Your task to perform on an android device: Add "usb-c to usb-a" to the cart on amazon Image 0: 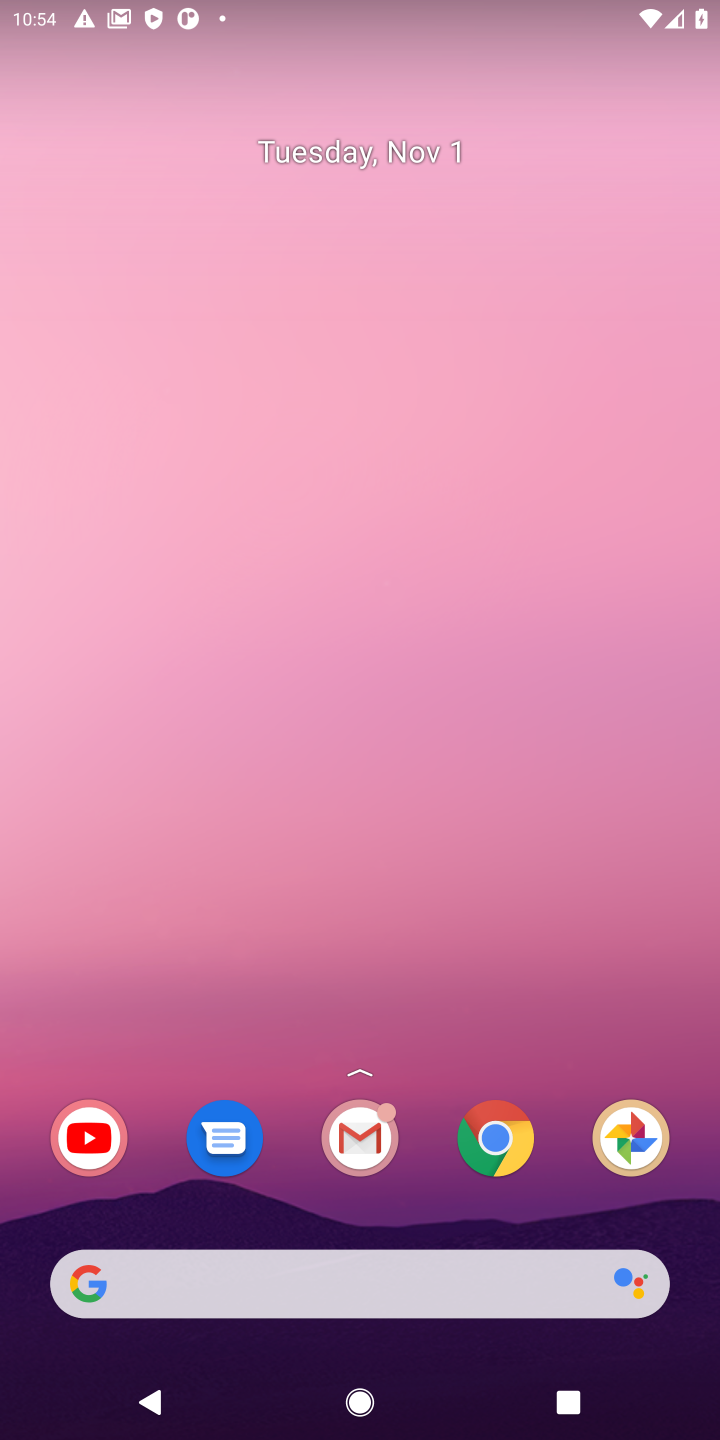
Step 0: click (487, 1140)
Your task to perform on an android device: Add "usb-c to usb-a" to the cart on amazon Image 1: 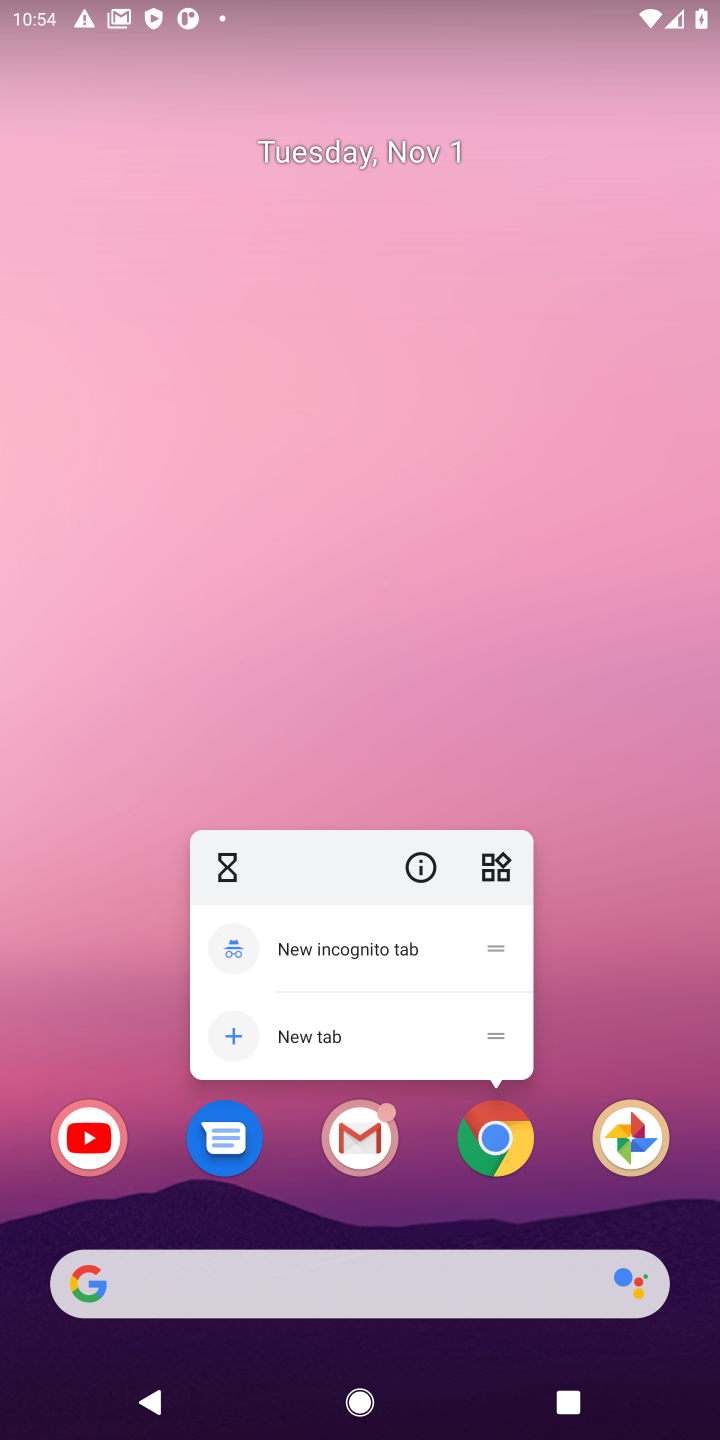
Step 1: click (494, 1146)
Your task to perform on an android device: Add "usb-c to usb-a" to the cart on amazon Image 2: 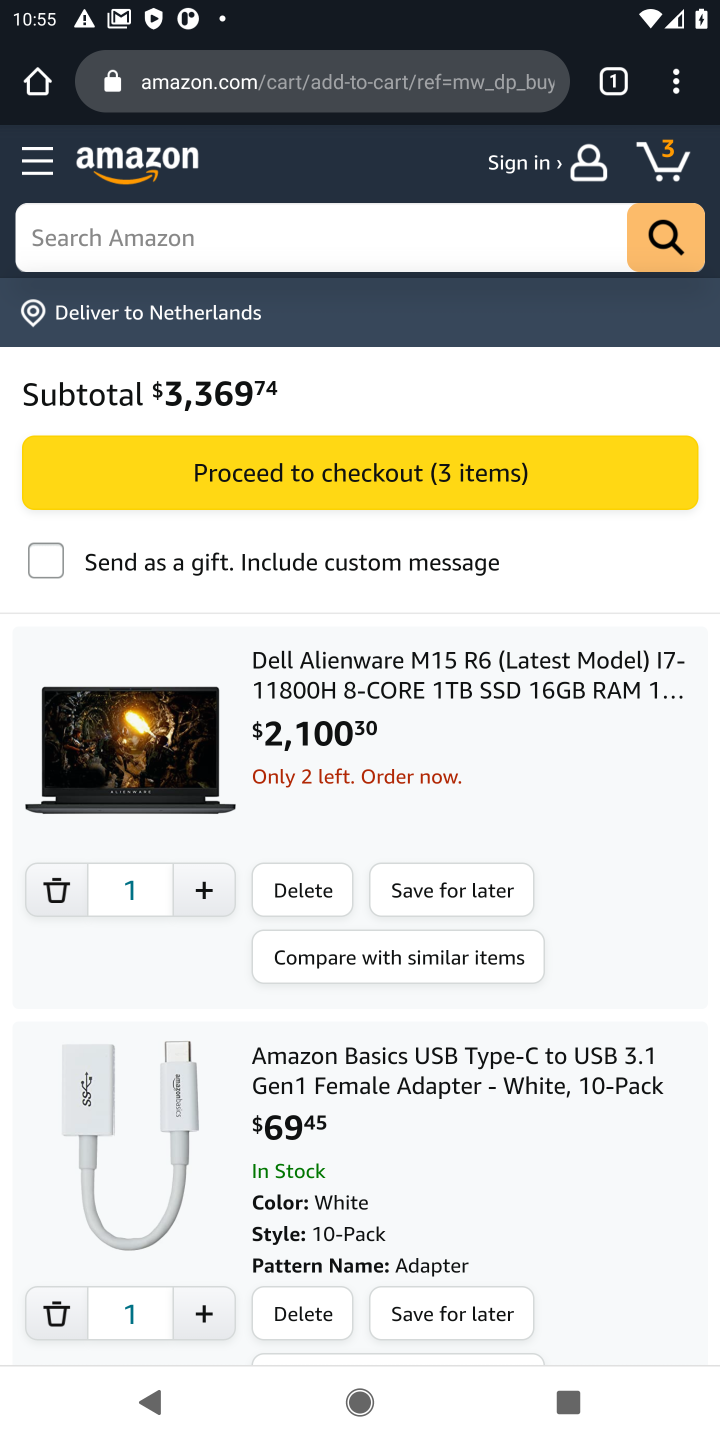
Step 2: click (244, 241)
Your task to perform on an android device: Add "usb-c to usb-a" to the cart on amazon Image 3: 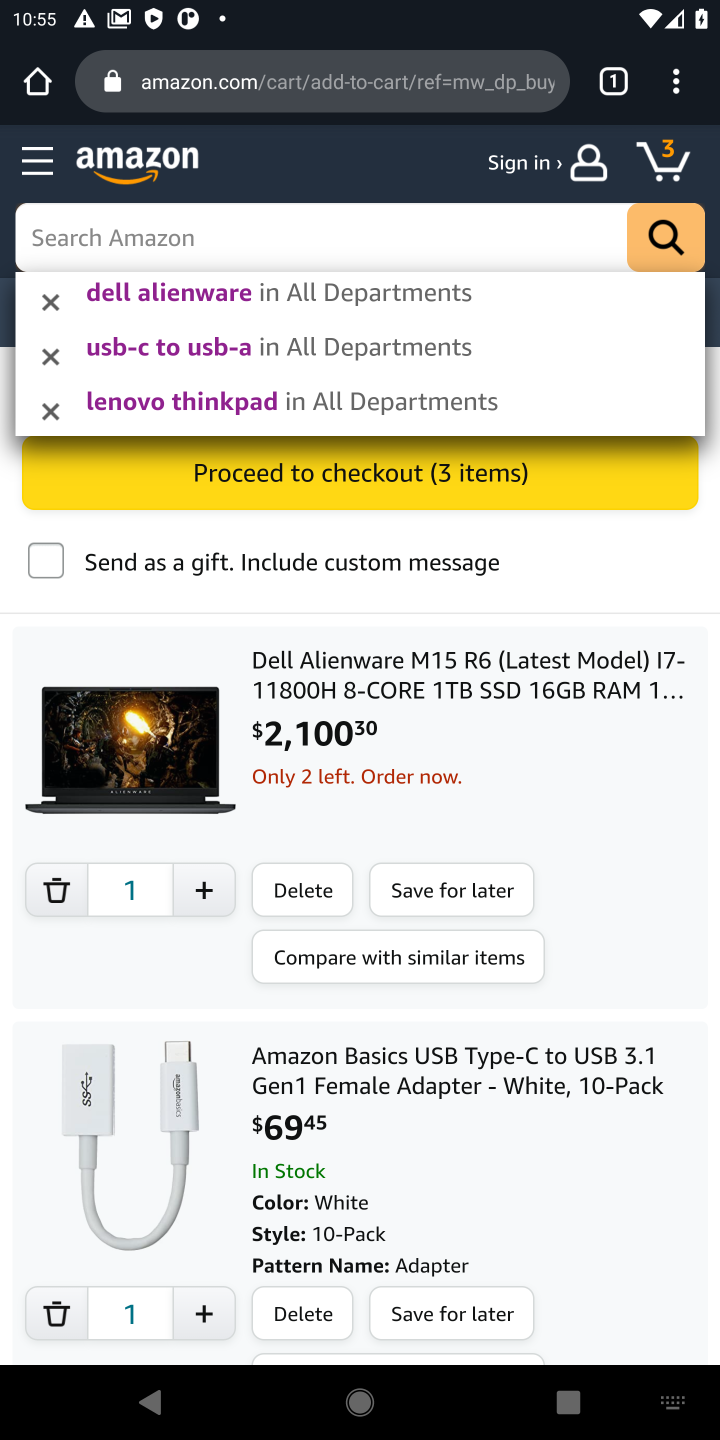
Step 3: type "usb-c to usb-a"
Your task to perform on an android device: Add "usb-c to usb-a" to the cart on amazon Image 4: 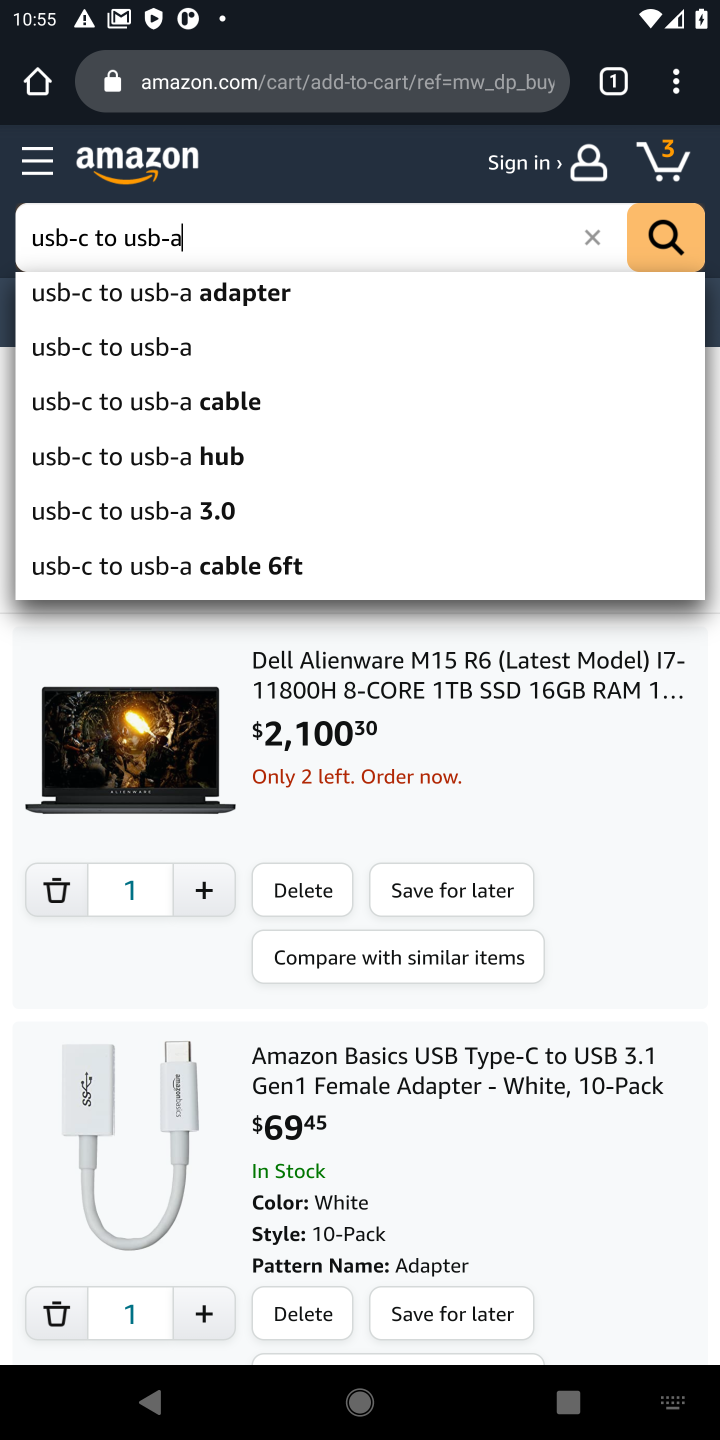
Step 4: click (168, 293)
Your task to perform on an android device: Add "usb-c to usb-a" to the cart on amazon Image 5: 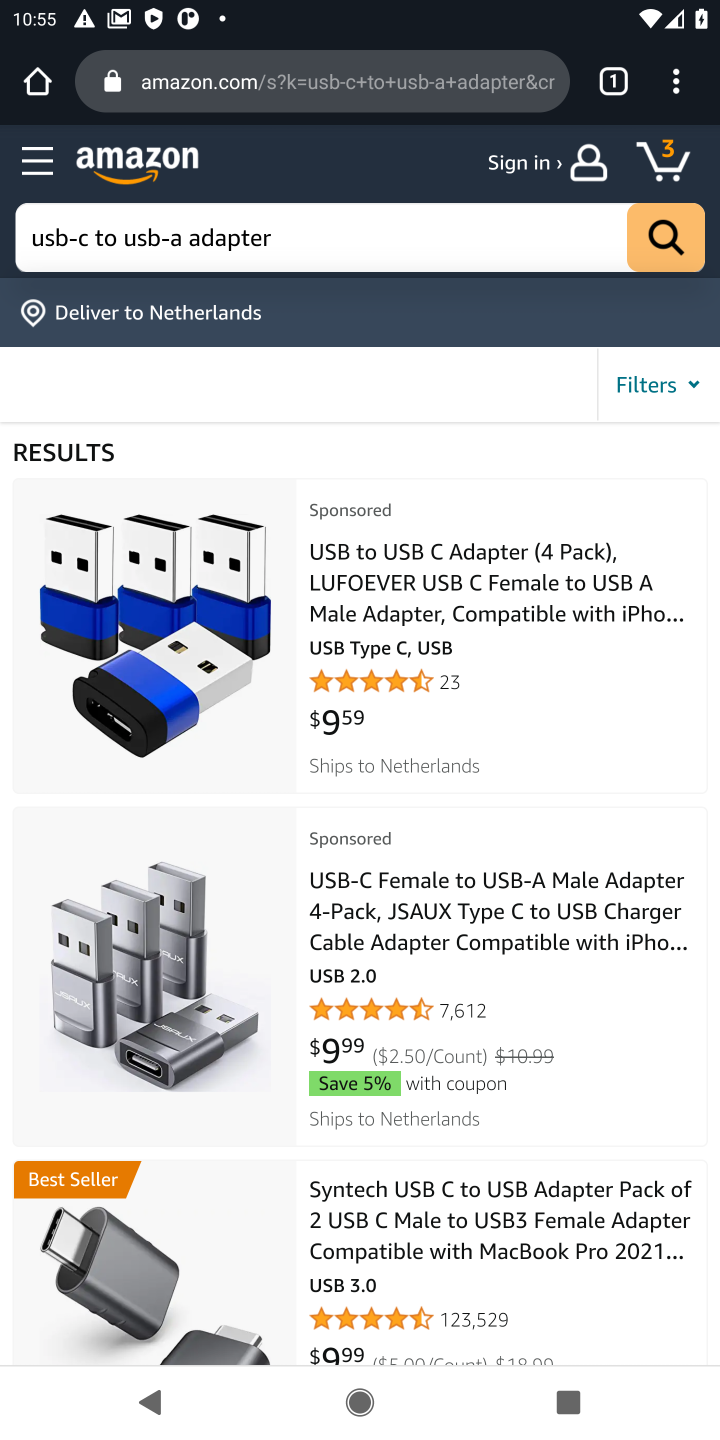
Step 5: click (293, 614)
Your task to perform on an android device: Add "usb-c to usb-a" to the cart on amazon Image 6: 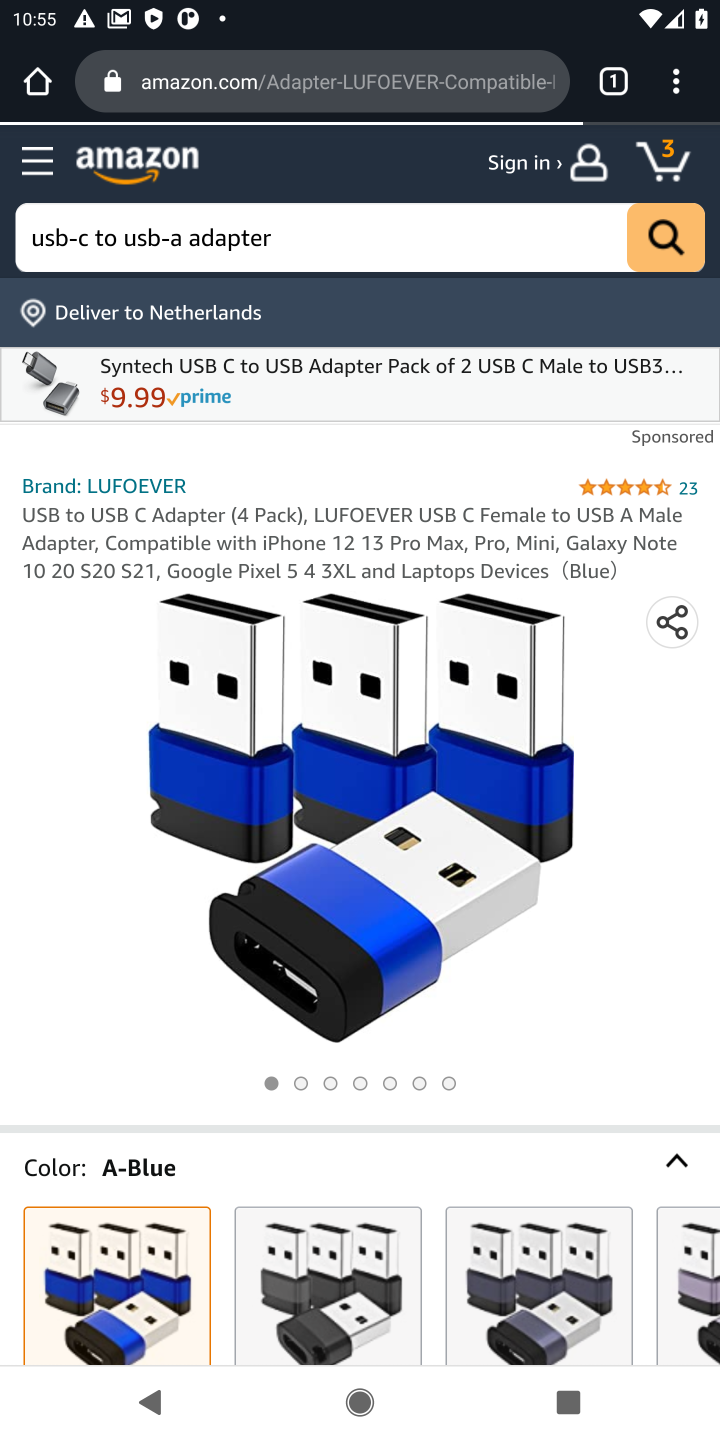
Step 6: drag from (313, 880) to (314, 373)
Your task to perform on an android device: Add "usb-c to usb-a" to the cart on amazon Image 7: 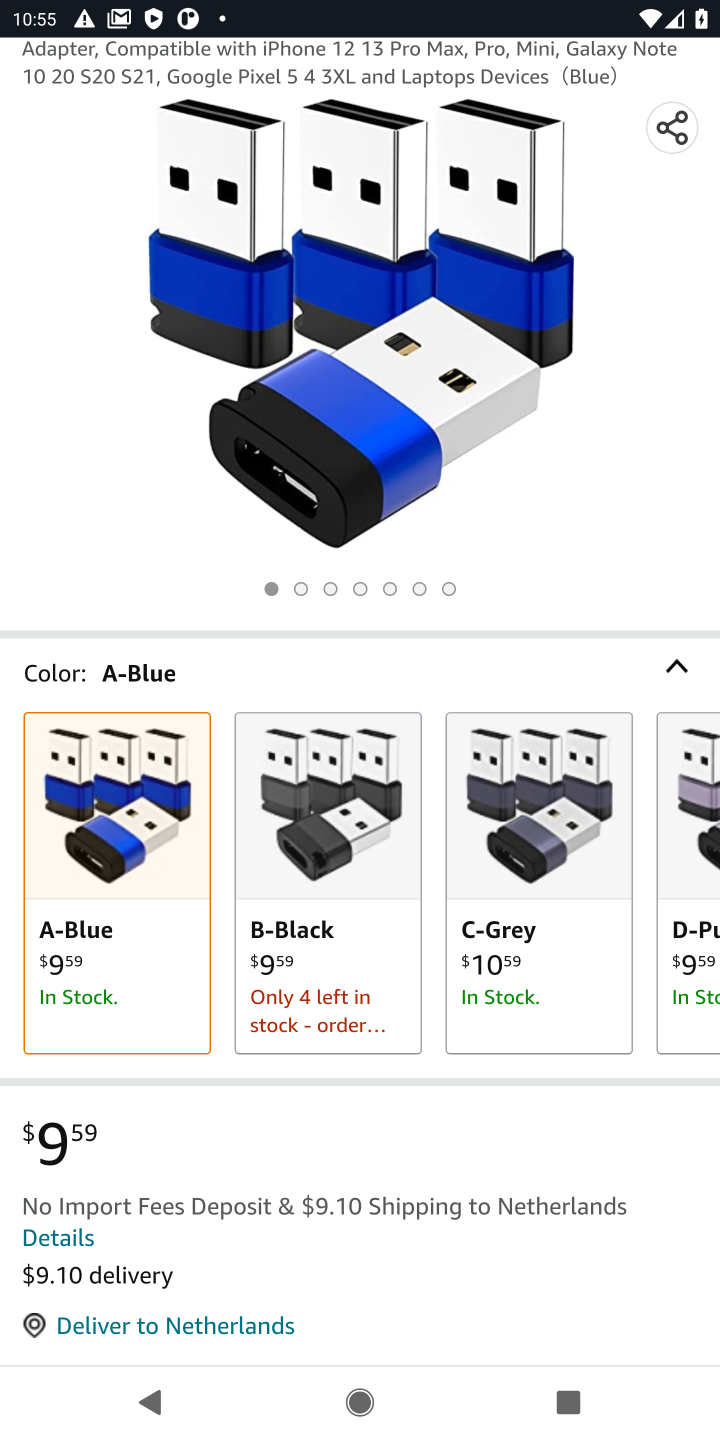
Step 7: drag from (280, 1053) to (278, 537)
Your task to perform on an android device: Add "usb-c to usb-a" to the cart on amazon Image 8: 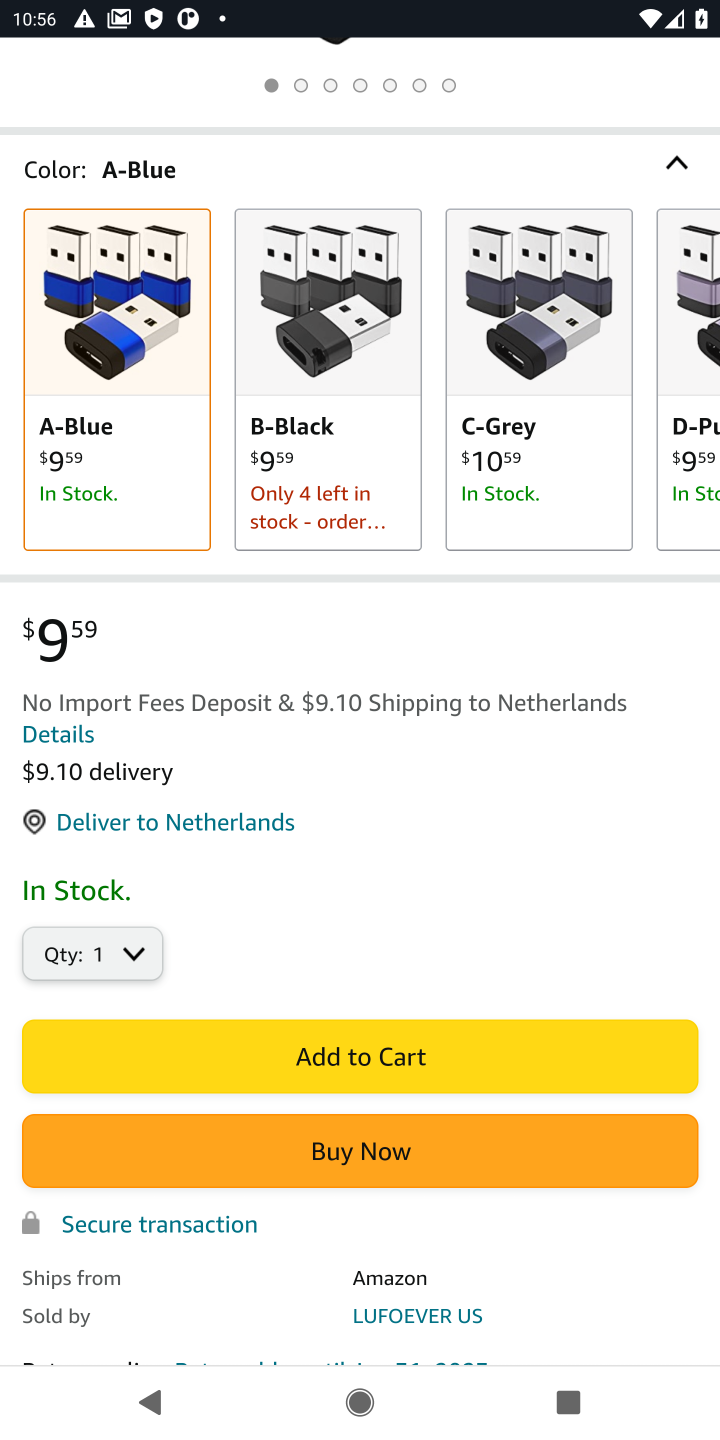
Step 8: click (254, 1059)
Your task to perform on an android device: Add "usb-c to usb-a" to the cart on amazon Image 9: 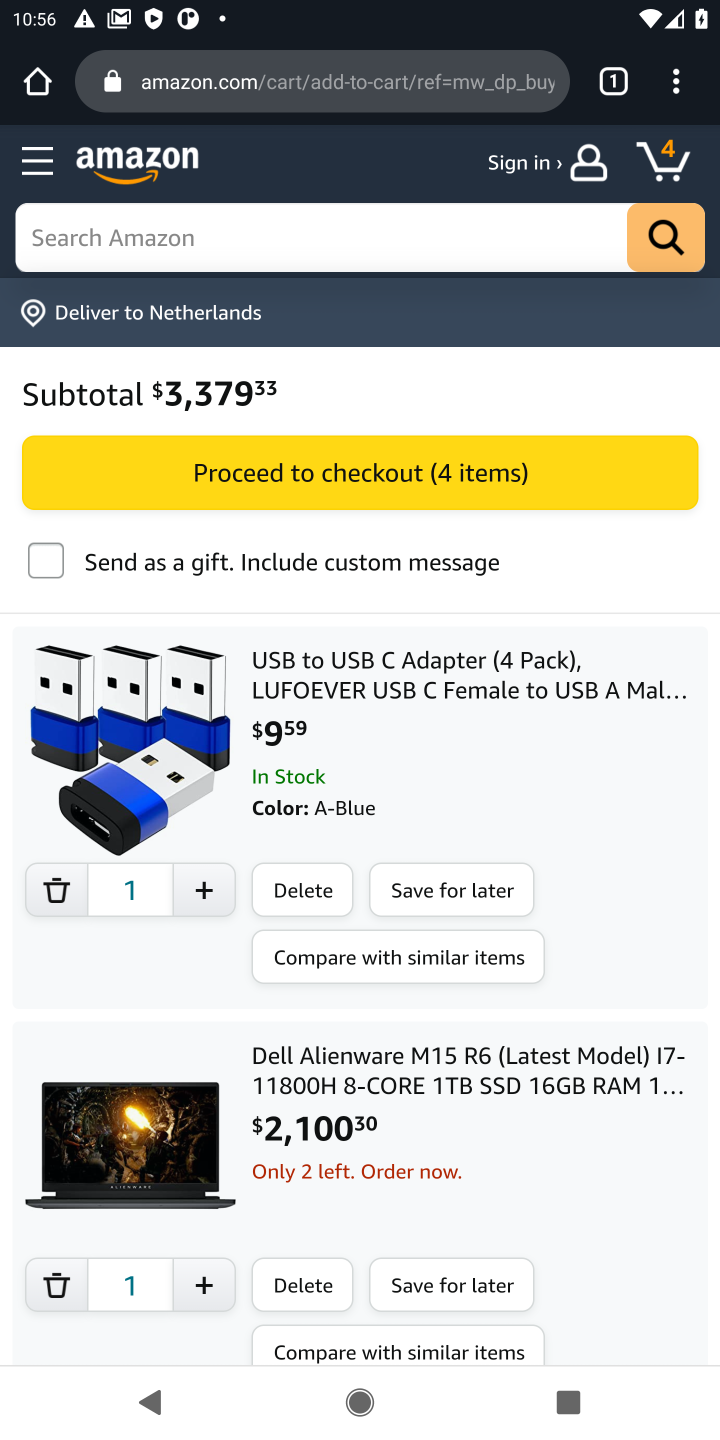
Step 9: task complete